Your task to perform on an android device: turn on showing notifications on the lock screen Image 0: 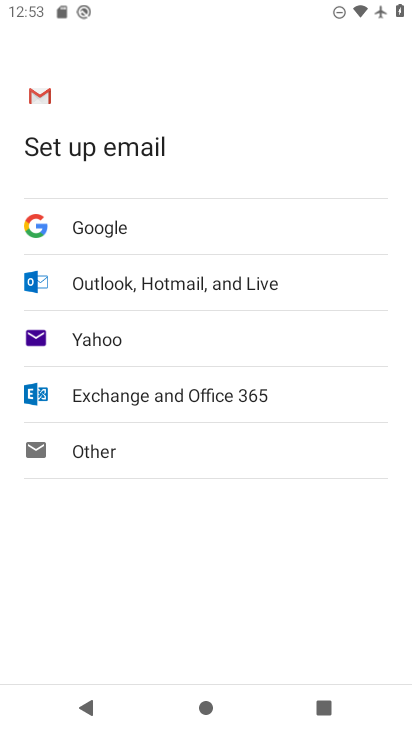
Step 0: press home button
Your task to perform on an android device: turn on showing notifications on the lock screen Image 1: 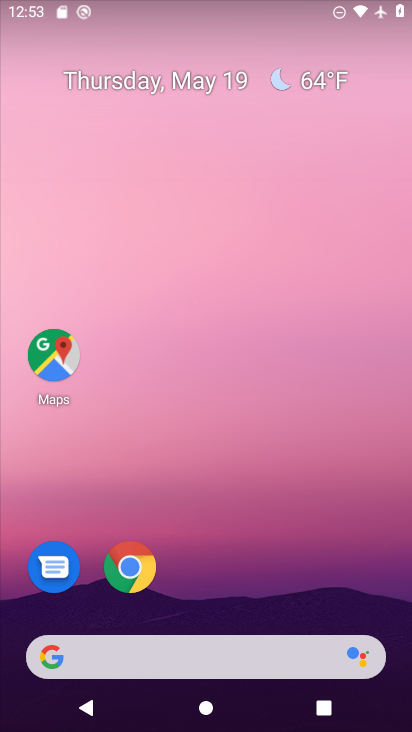
Step 1: drag from (225, 558) to (215, 208)
Your task to perform on an android device: turn on showing notifications on the lock screen Image 2: 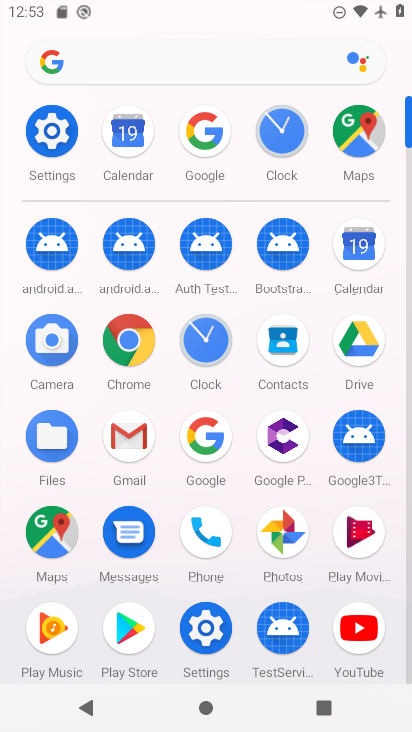
Step 2: click (60, 139)
Your task to perform on an android device: turn on showing notifications on the lock screen Image 3: 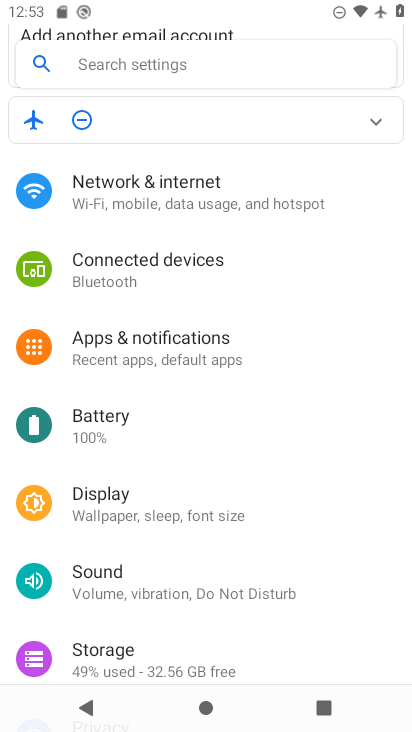
Step 3: drag from (134, 615) to (133, 324)
Your task to perform on an android device: turn on showing notifications on the lock screen Image 4: 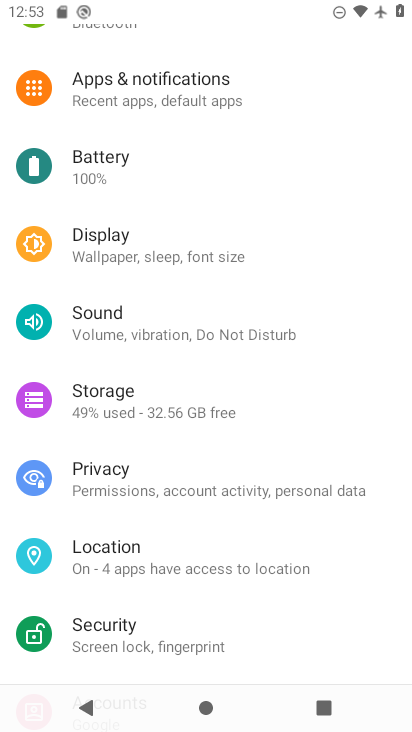
Step 4: drag from (163, 602) to (178, 363)
Your task to perform on an android device: turn on showing notifications on the lock screen Image 5: 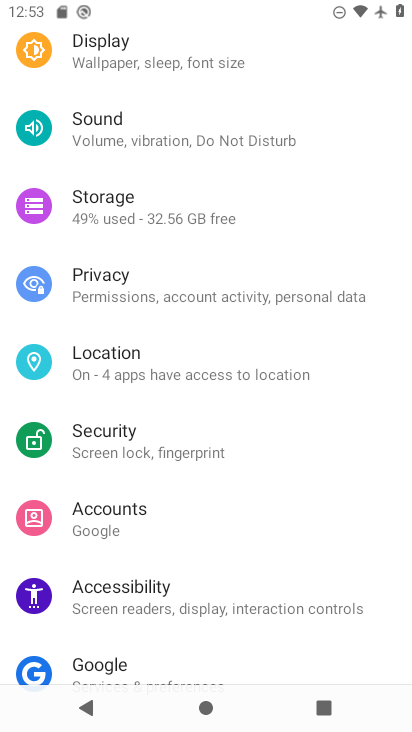
Step 5: drag from (181, 274) to (192, 665)
Your task to perform on an android device: turn on showing notifications on the lock screen Image 6: 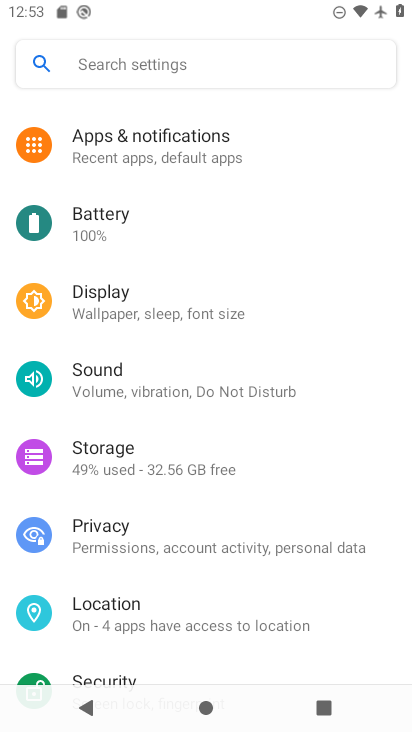
Step 6: click (180, 153)
Your task to perform on an android device: turn on showing notifications on the lock screen Image 7: 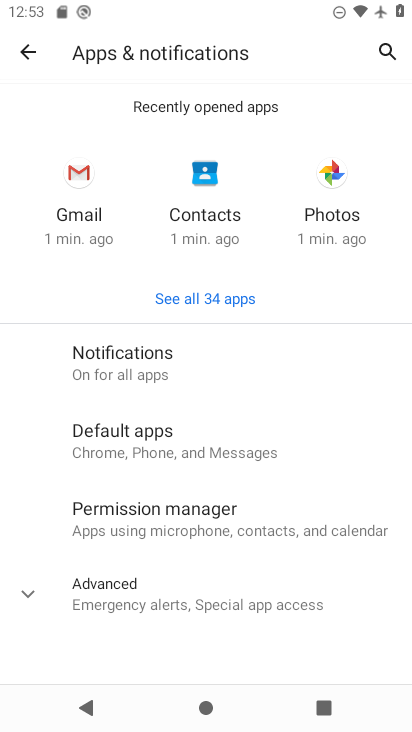
Step 7: click (163, 368)
Your task to perform on an android device: turn on showing notifications on the lock screen Image 8: 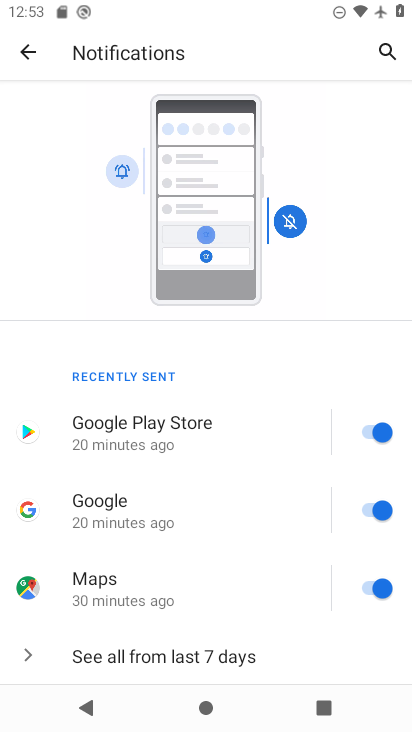
Step 8: drag from (180, 567) to (175, 331)
Your task to perform on an android device: turn on showing notifications on the lock screen Image 9: 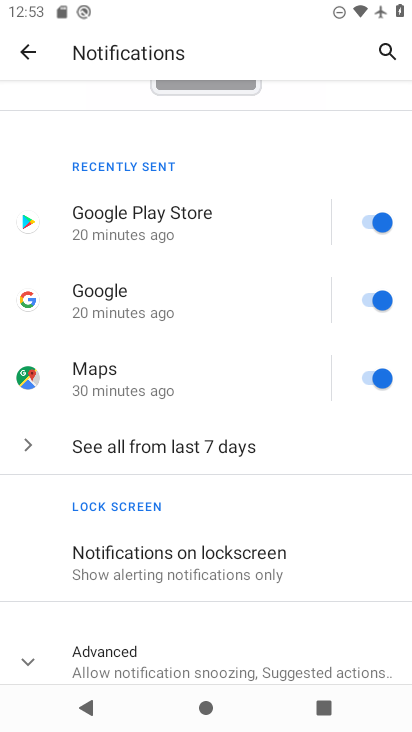
Step 9: click (182, 579)
Your task to perform on an android device: turn on showing notifications on the lock screen Image 10: 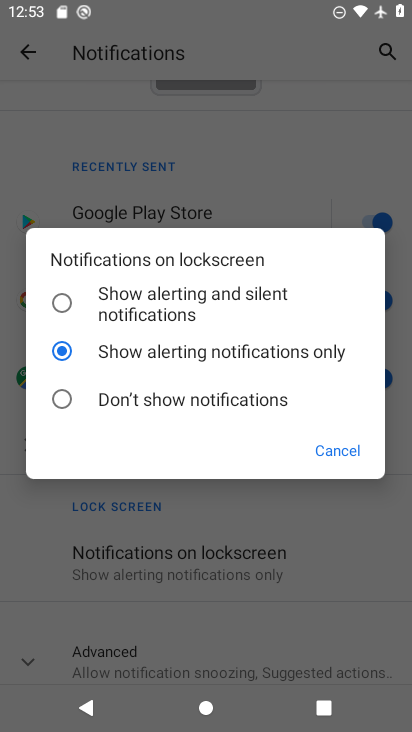
Step 10: click (178, 308)
Your task to perform on an android device: turn on showing notifications on the lock screen Image 11: 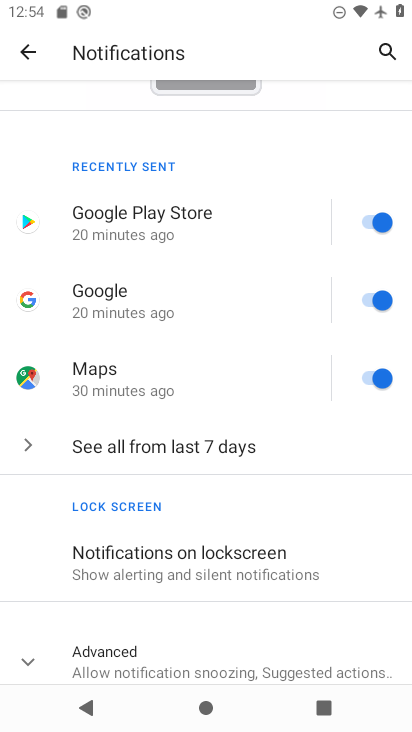
Step 11: task complete